Your task to perform on an android device: What's the weather today? Image 0: 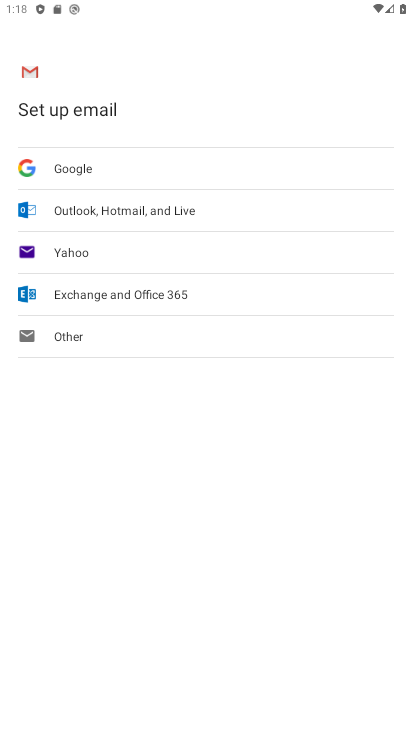
Step 0: press home button
Your task to perform on an android device: What's the weather today? Image 1: 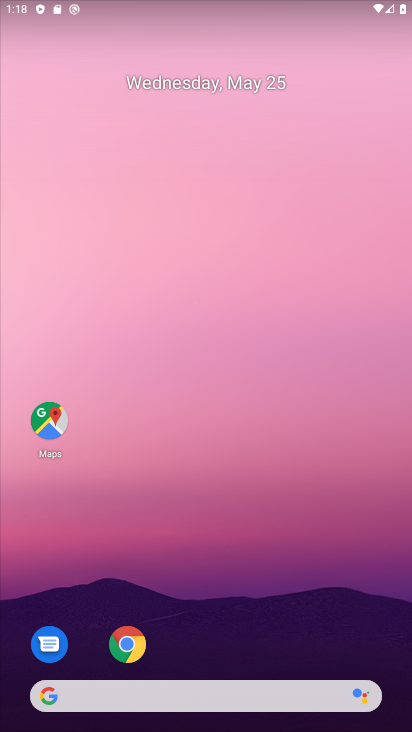
Step 1: drag from (256, 661) to (113, 98)
Your task to perform on an android device: What's the weather today? Image 2: 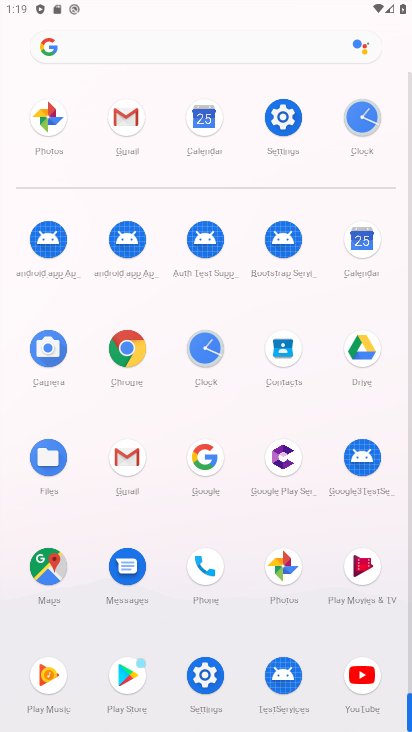
Step 2: click (204, 459)
Your task to perform on an android device: What's the weather today? Image 3: 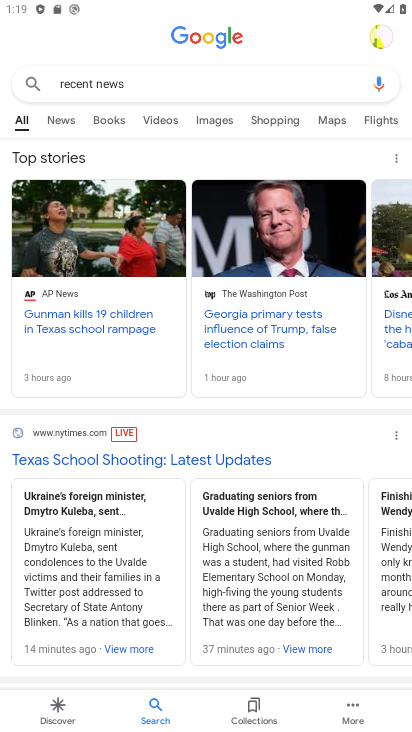
Step 3: click (273, 97)
Your task to perform on an android device: What's the weather today? Image 4: 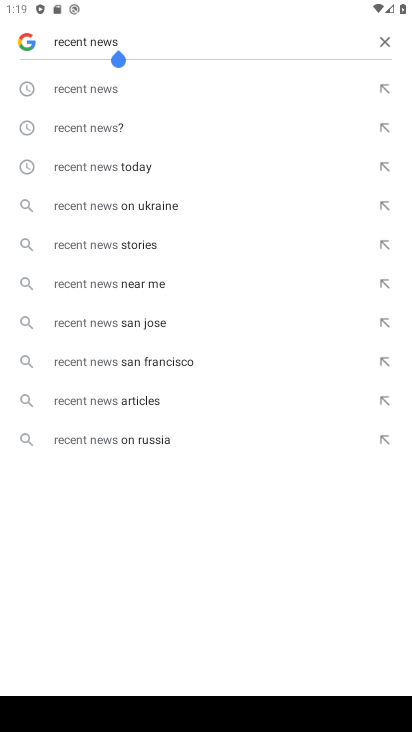
Step 4: click (381, 49)
Your task to perform on an android device: What's the weather today? Image 5: 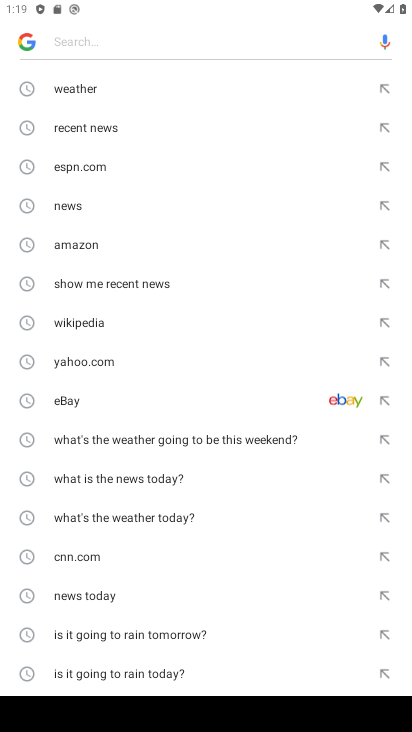
Step 5: click (104, 99)
Your task to perform on an android device: What's the weather today? Image 6: 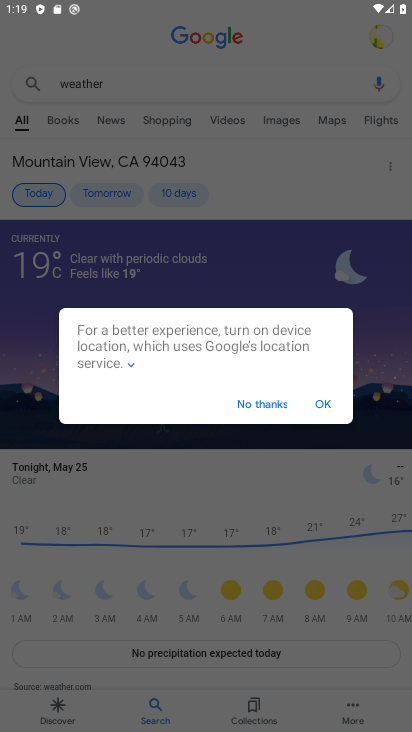
Step 6: click (249, 407)
Your task to perform on an android device: What's the weather today? Image 7: 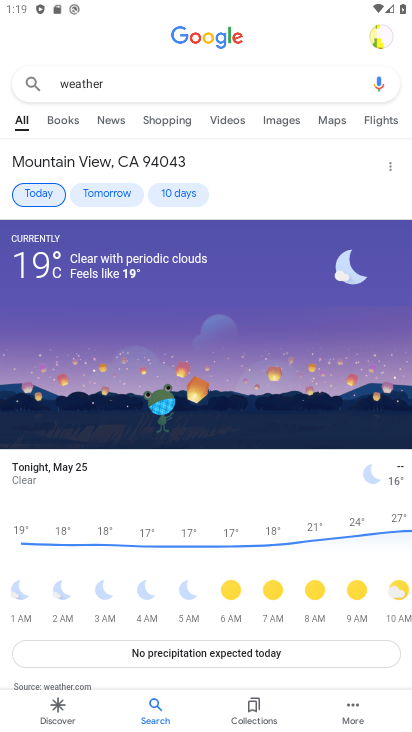
Step 7: task complete